Your task to perform on an android device: delete location history Image 0: 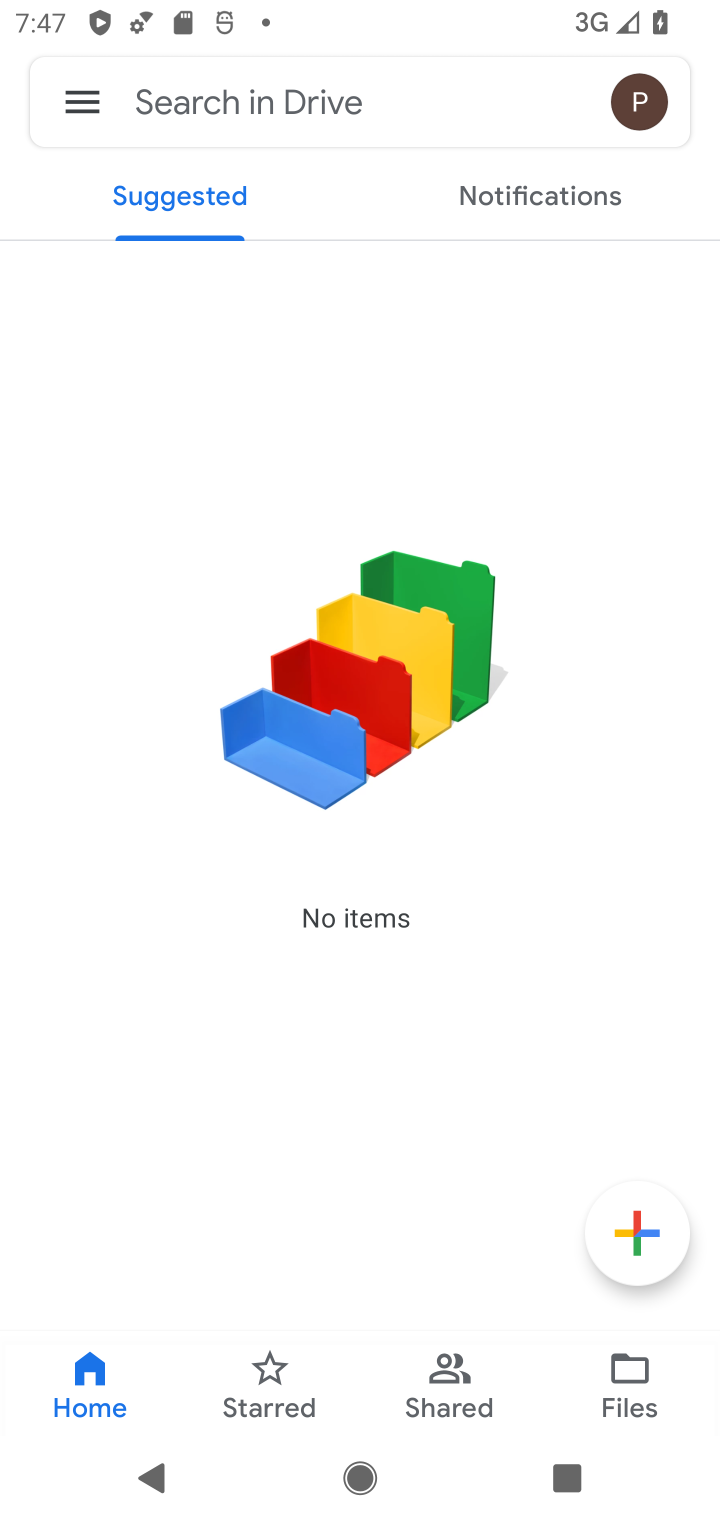
Step 0: press home button
Your task to perform on an android device: delete location history Image 1: 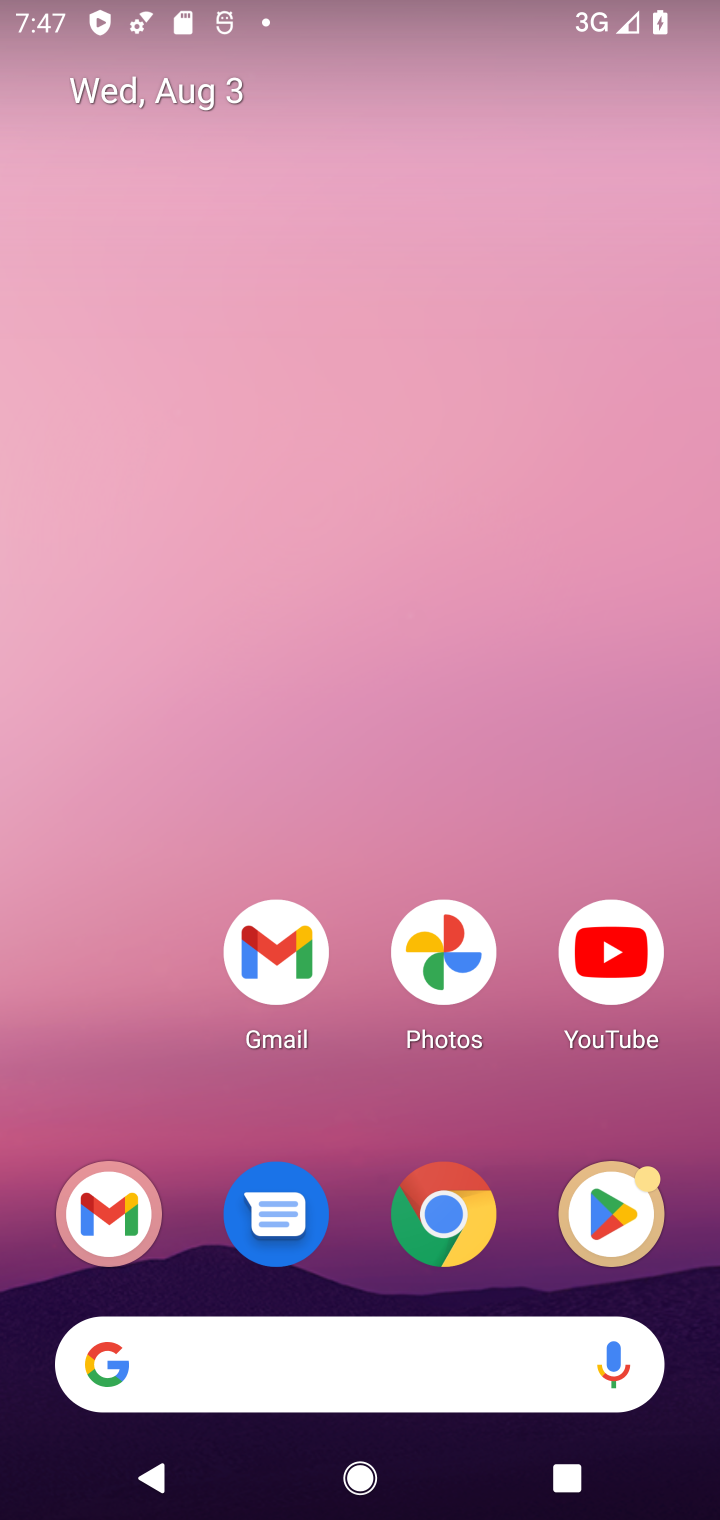
Step 1: drag from (132, 1010) to (366, 87)
Your task to perform on an android device: delete location history Image 2: 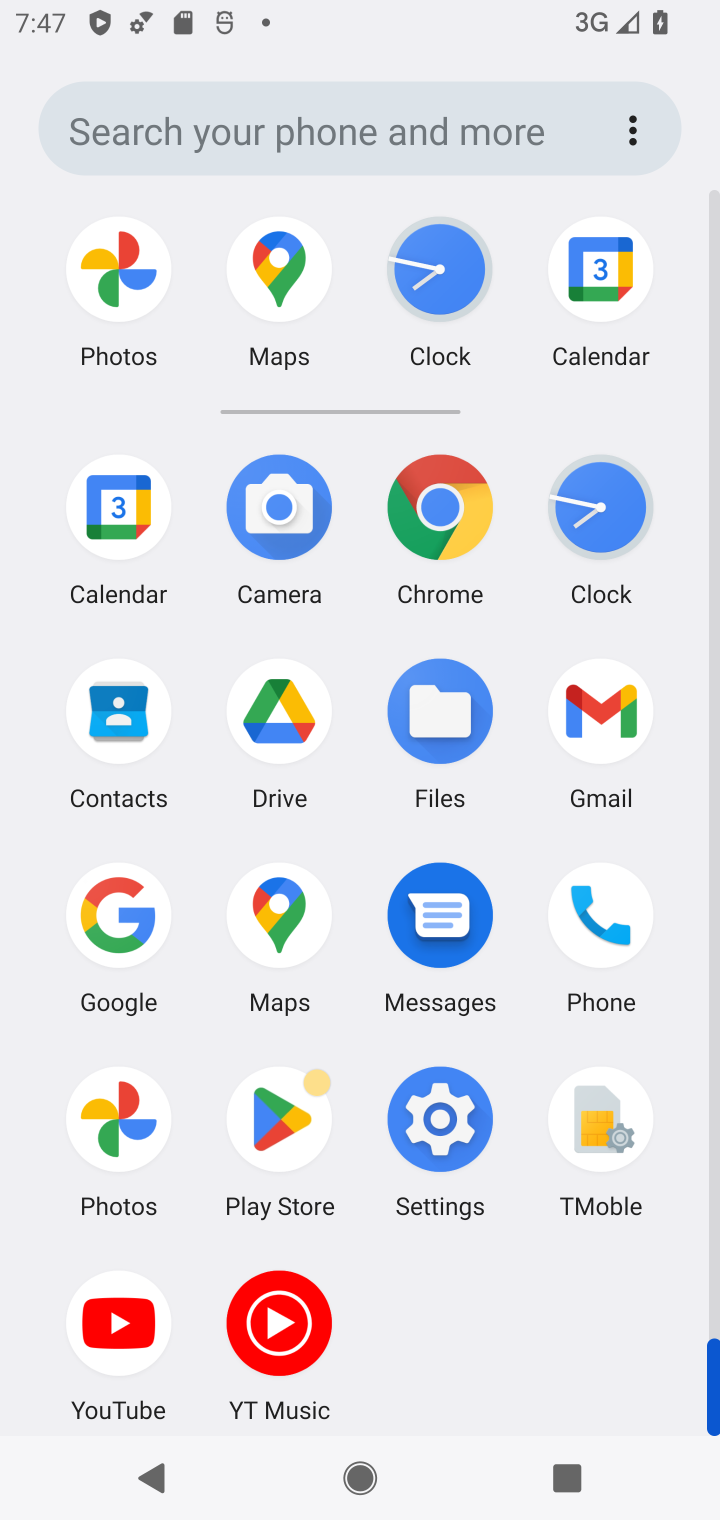
Step 2: click (447, 1113)
Your task to perform on an android device: delete location history Image 3: 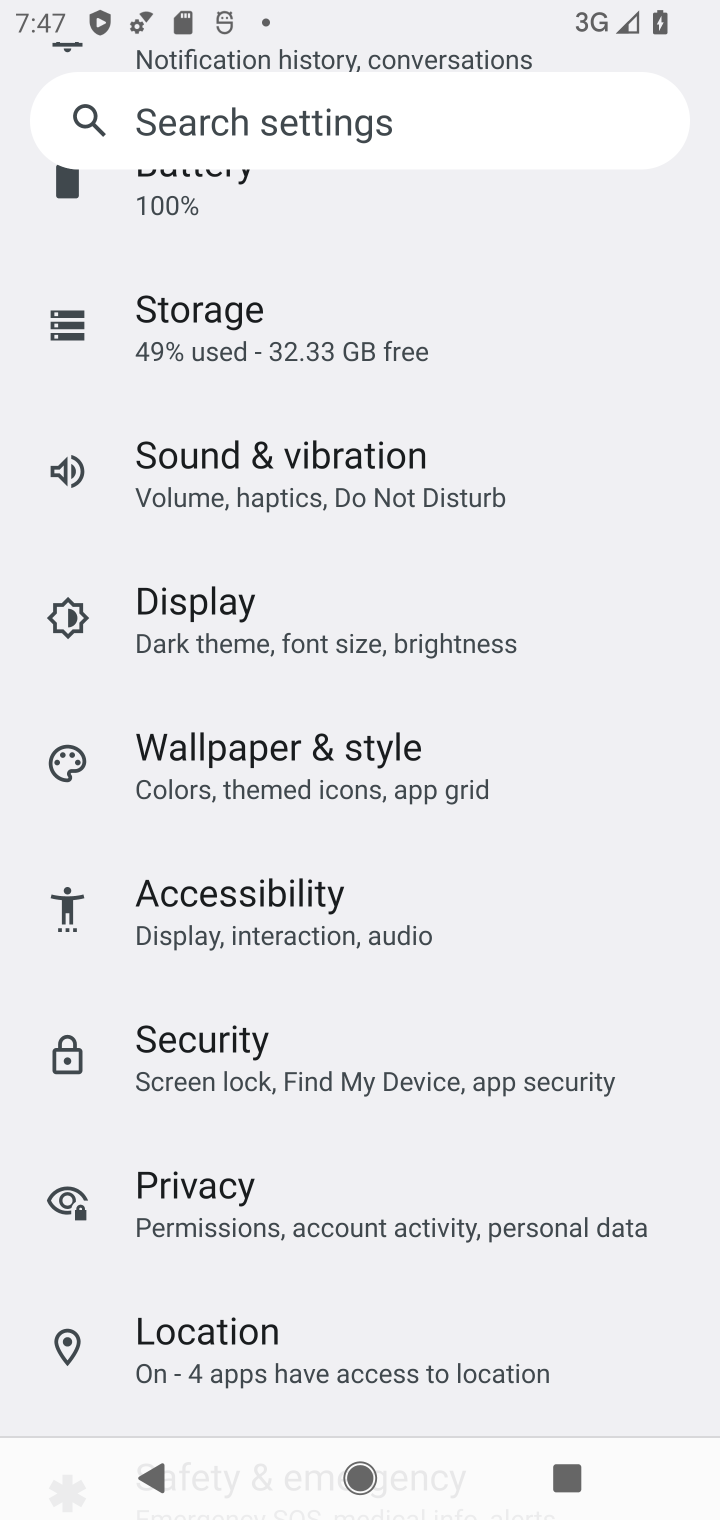
Step 3: press home button
Your task to perform on an android device: delete location history Image 4: 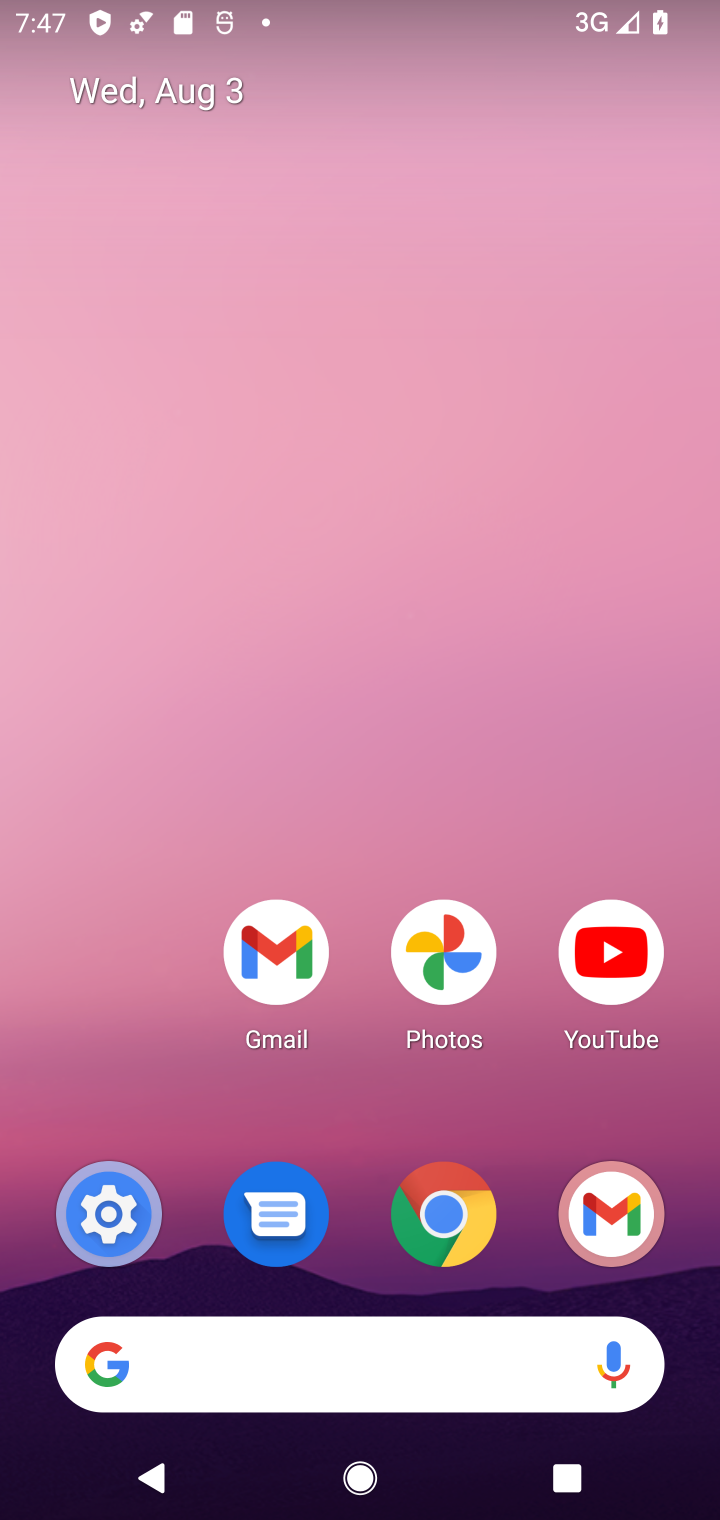
Step 4: drag from (170, 579) to (144, 11)
Your task to perform on an android device: delete location history Image 5: 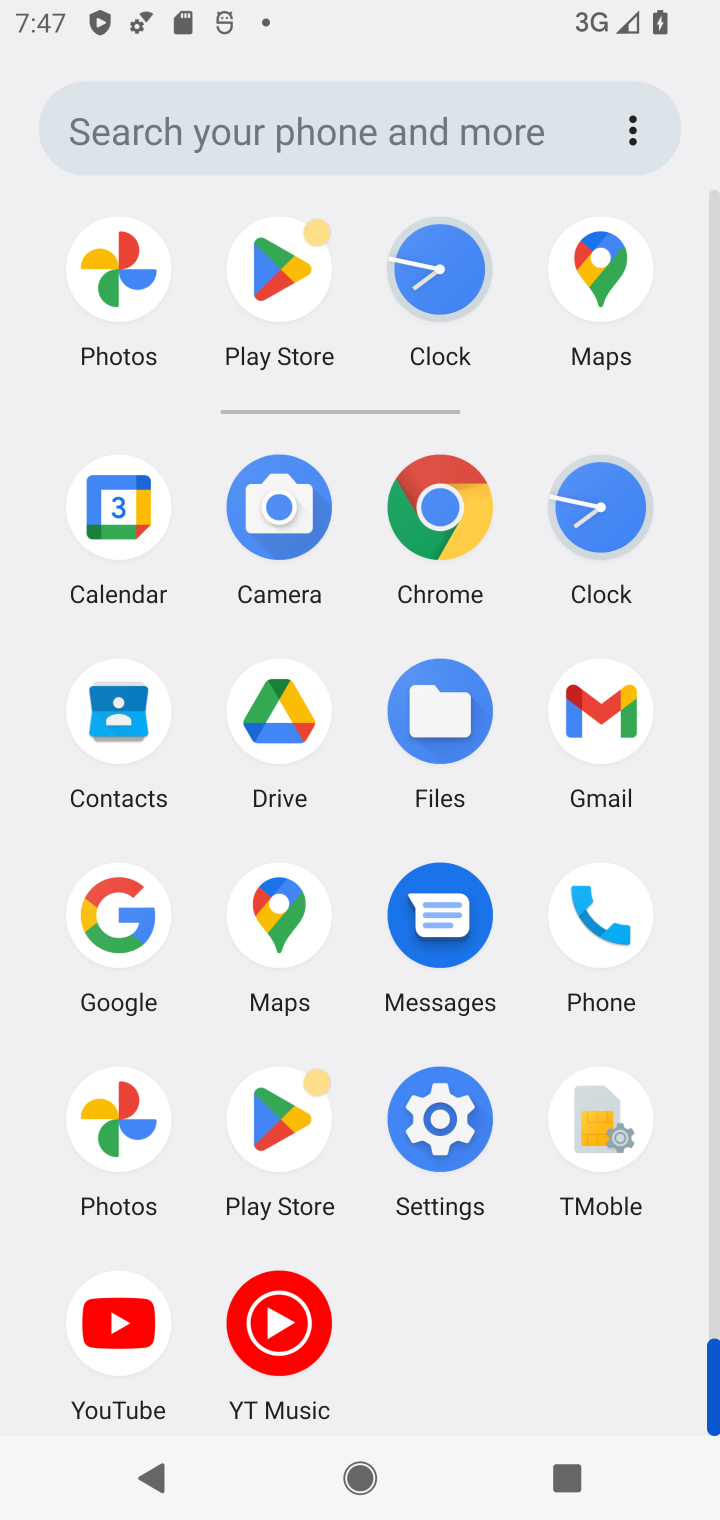
Step 5: click (294, 923)
Your task to perform on an android device: delete location history Image 6: 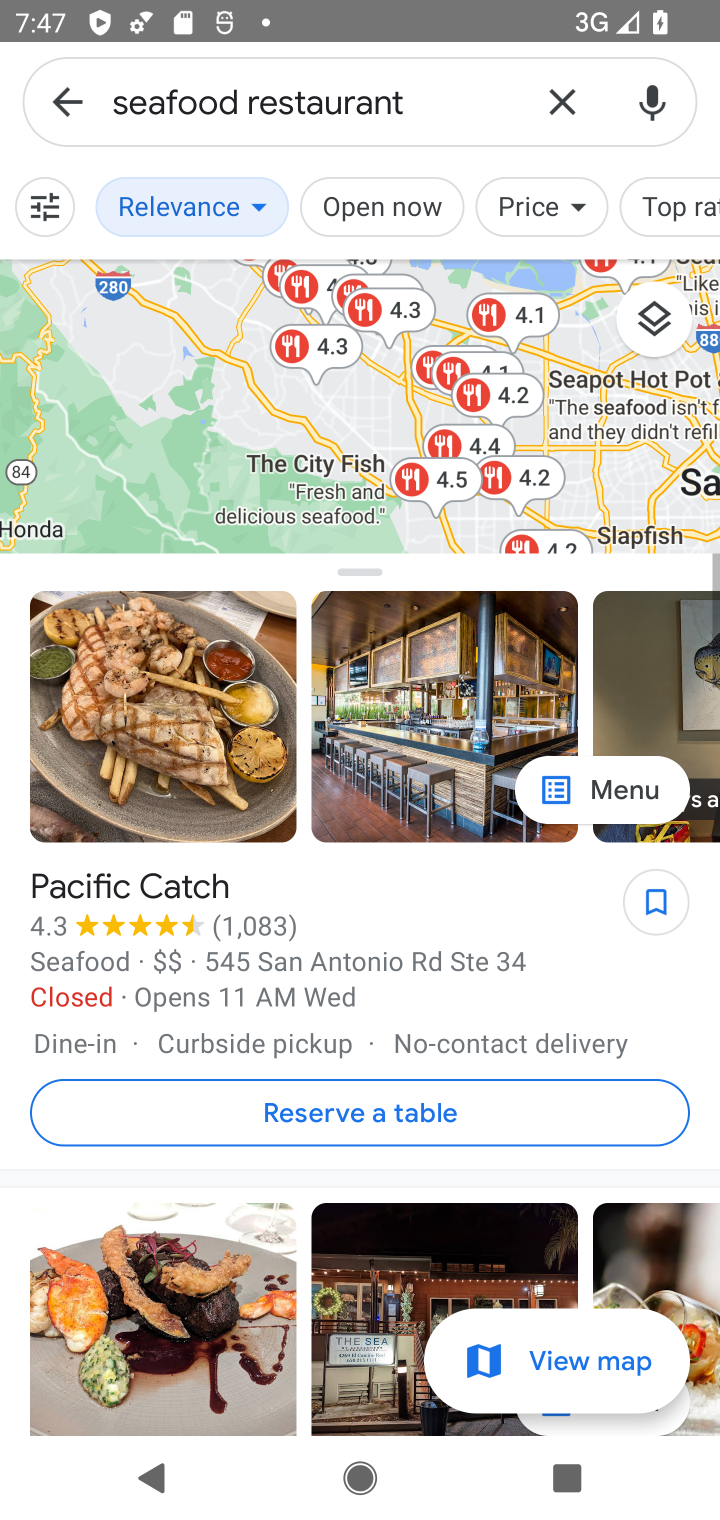
Step 6: click (85, 105)
Your task to perform on an android device: delete location history Image 7: 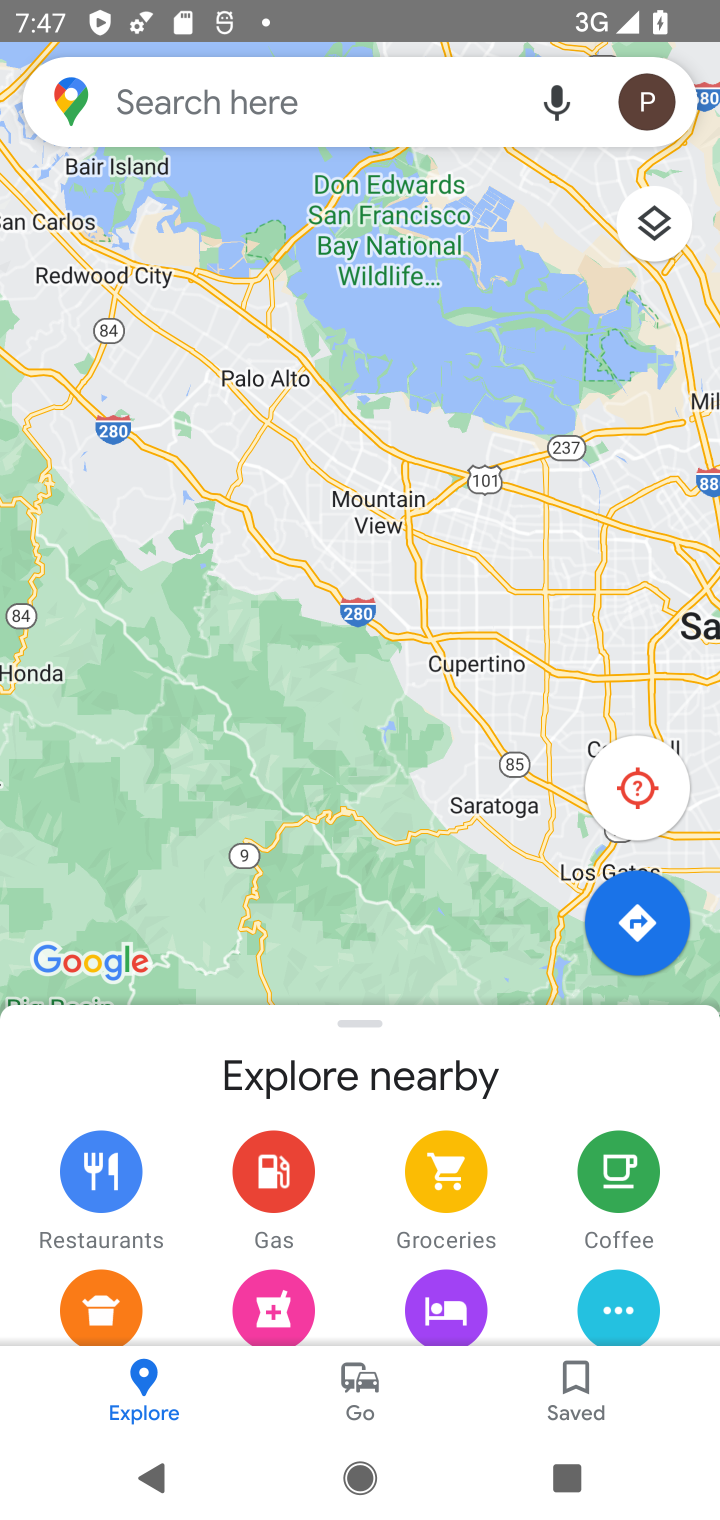
Step 7: click (663, 86)
Your task to perform on an android device: delete location history Image 8: 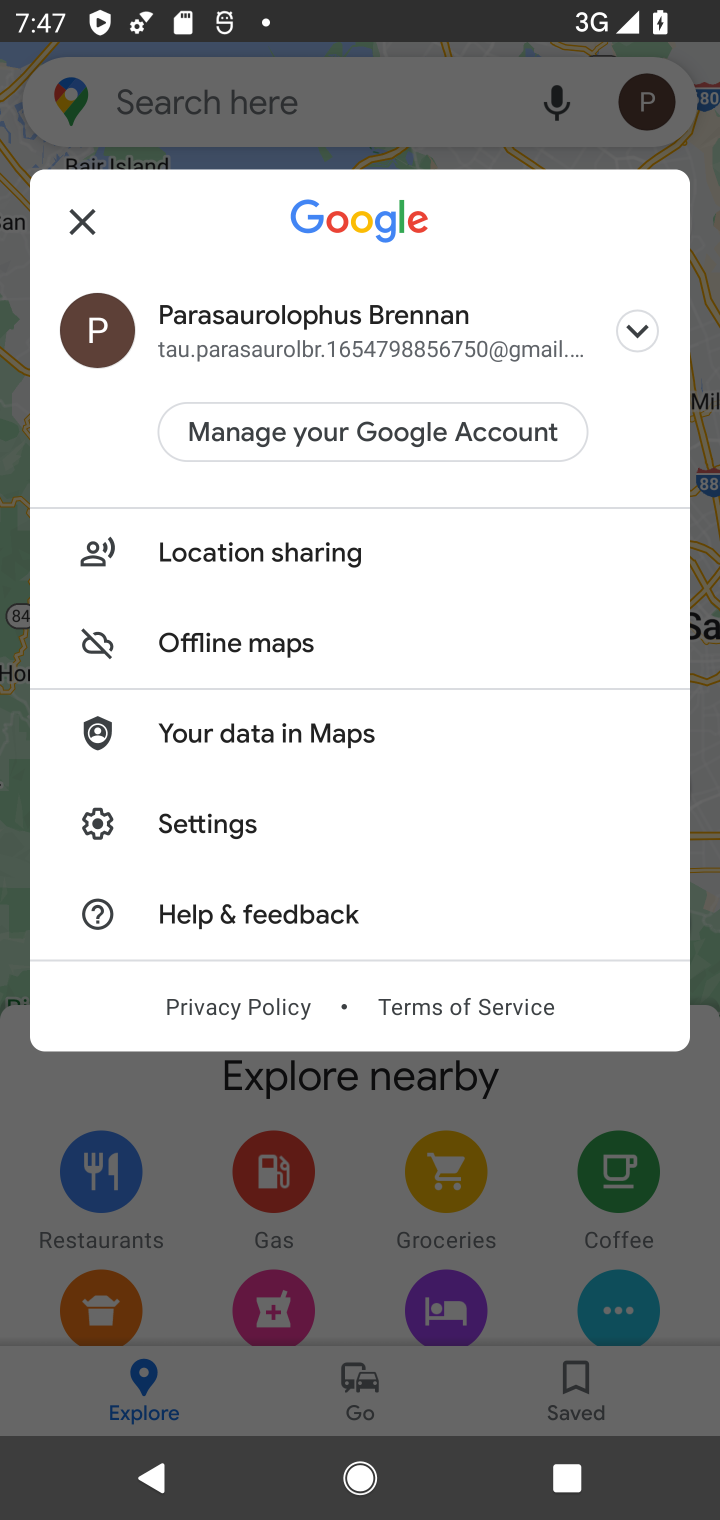
Step 8: drag from (230, 859) to (323, 286)
Your task to perform on an android device: delete location history Image 9: 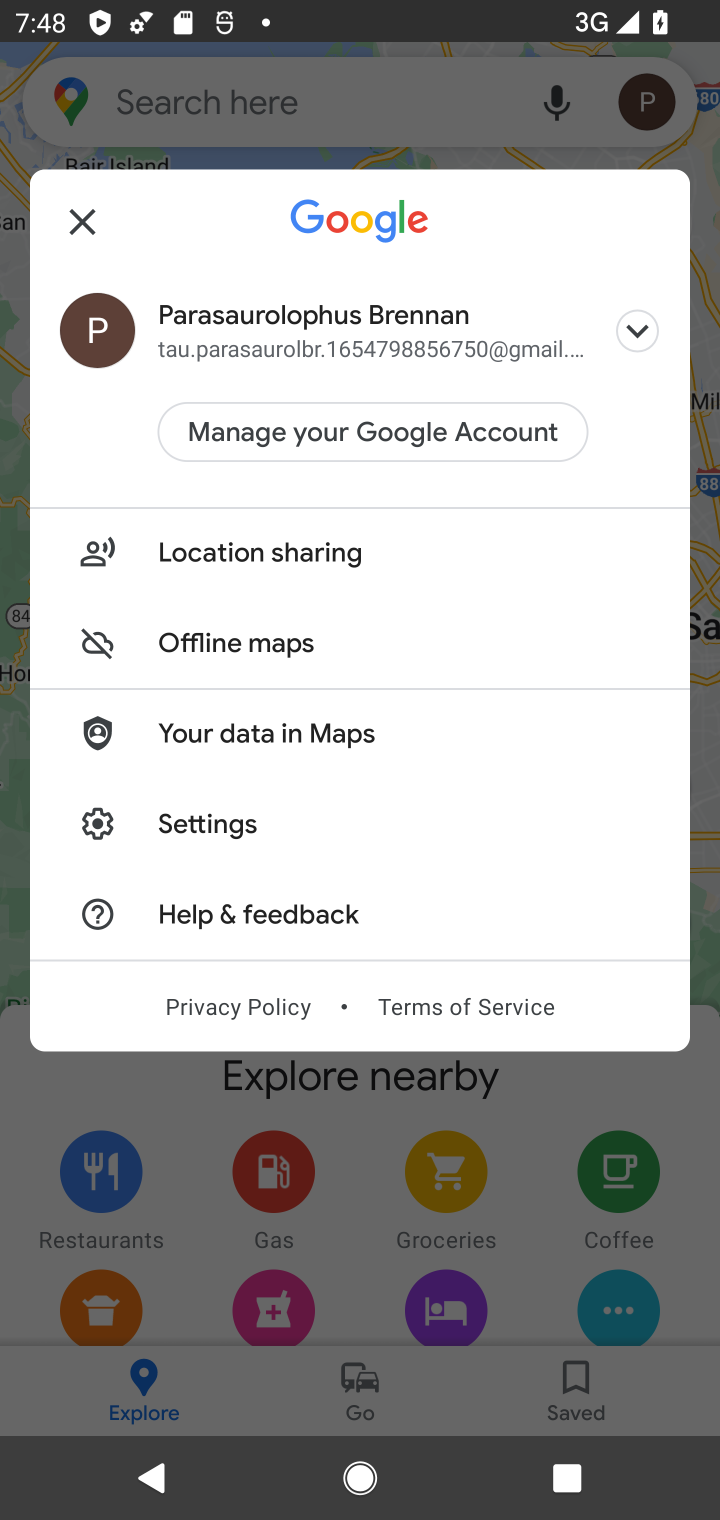
Step 9: click (235, 823)
Your task to perform on an android device: delete location history Image 10: 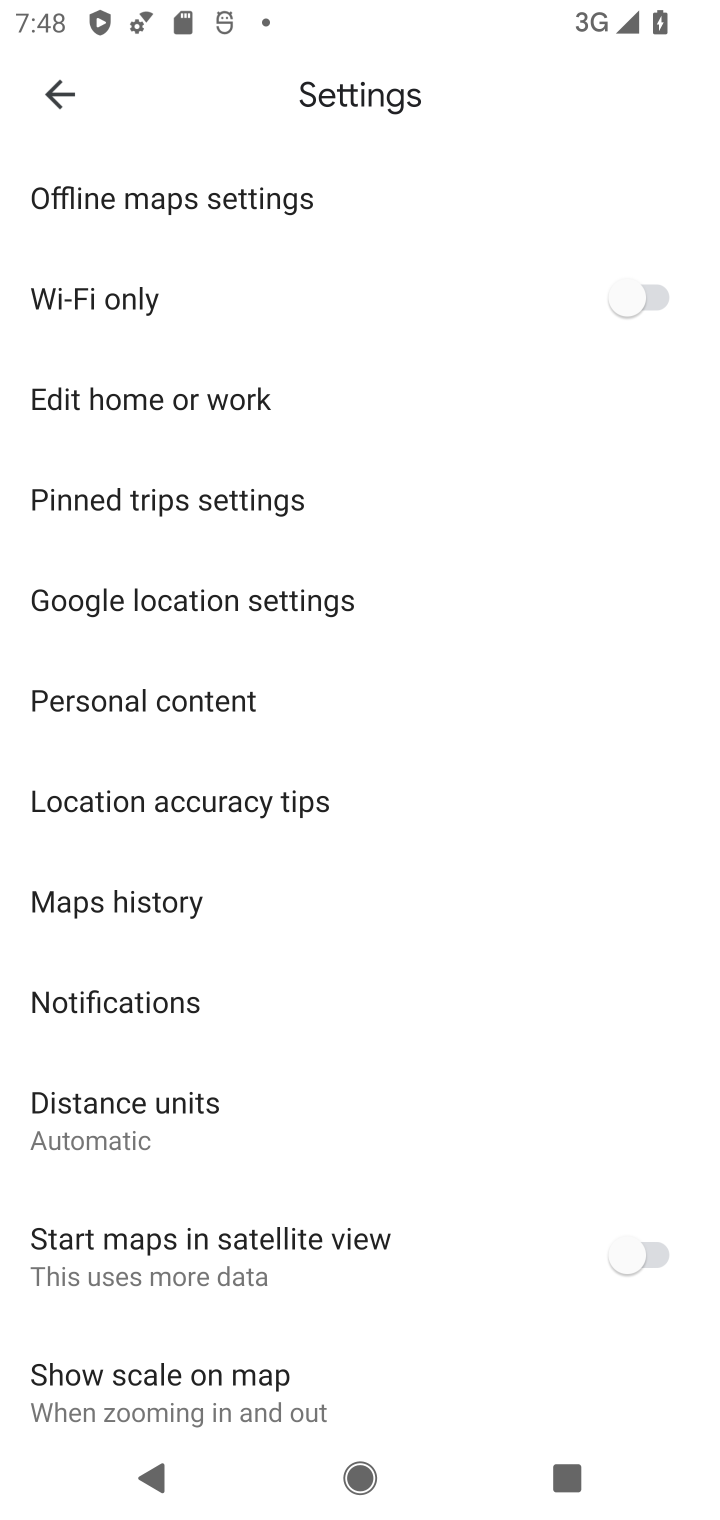
Step 10: task complete